Your task to perform on an android device: Open Google Maps Image 0: 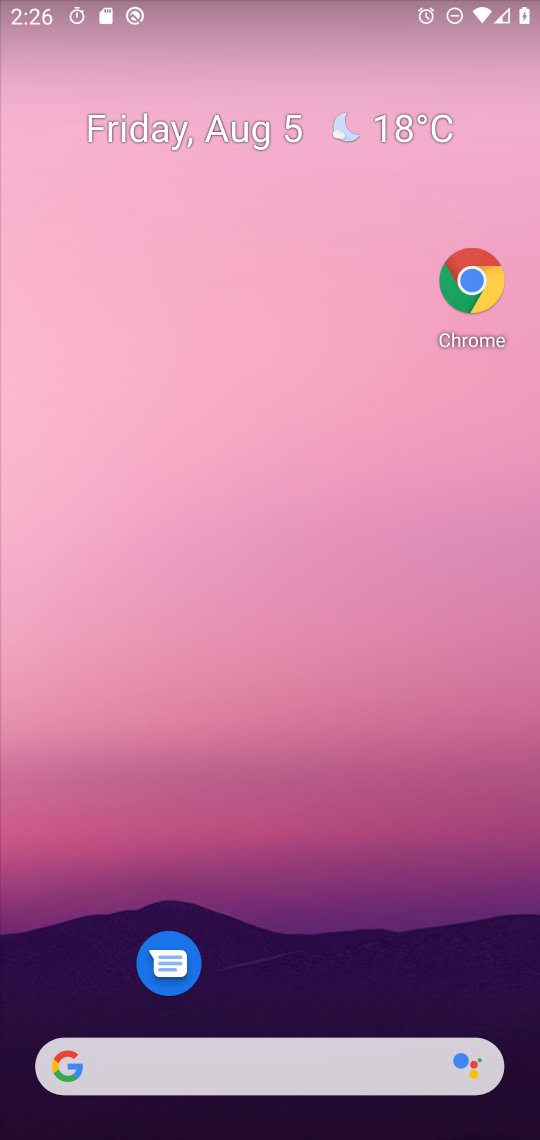
Step 0: drag from (433, 958) to (325, 187)
Your task to perform on an android device: Open Google Maps Image 1: 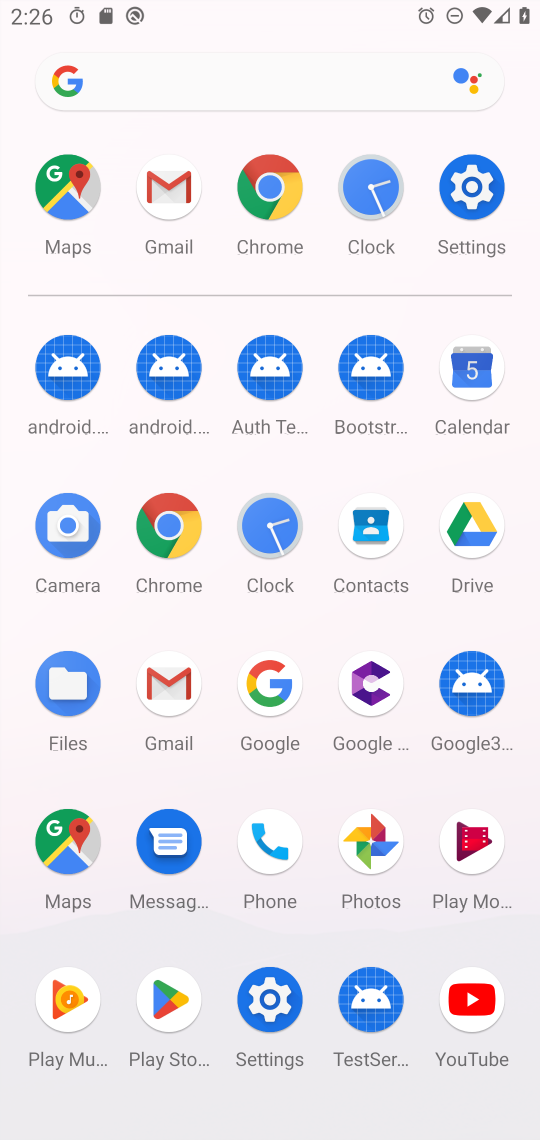
Step 1: click (86, 197)
Your task to perform on an android device: Open Google Maps Image 2: 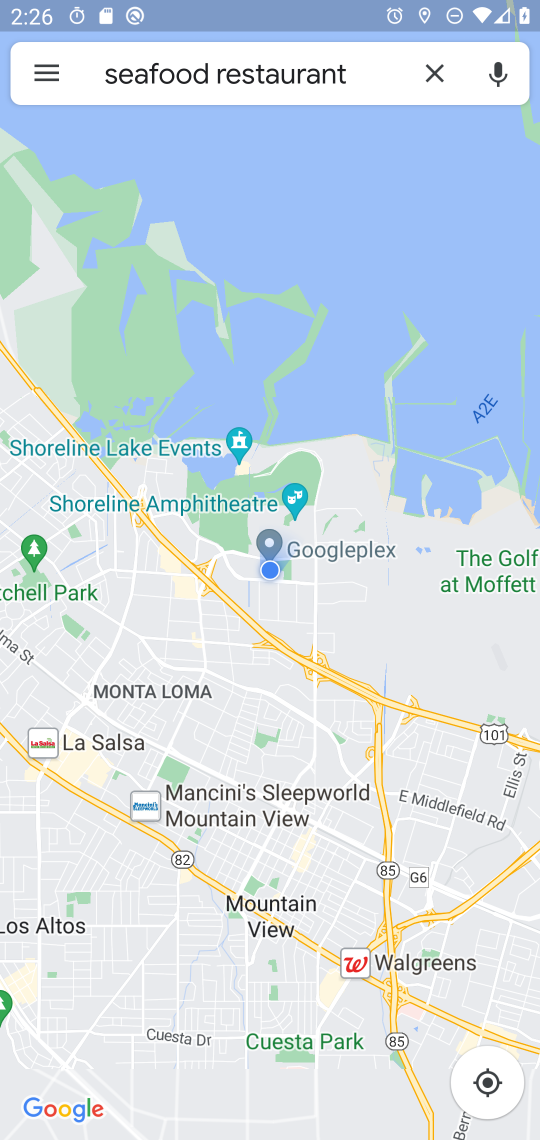
Step 2: task complete